Your task to perform on an android device: Go to location settings Image 0: 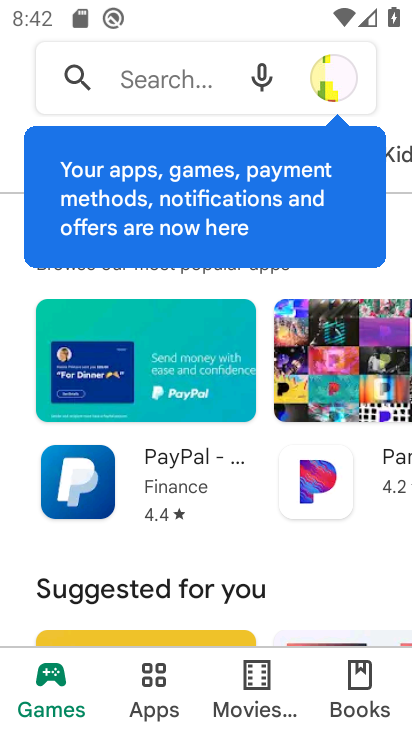
Step 0: press home button
Your task to perform on an android device: Go to location settings Image 1: 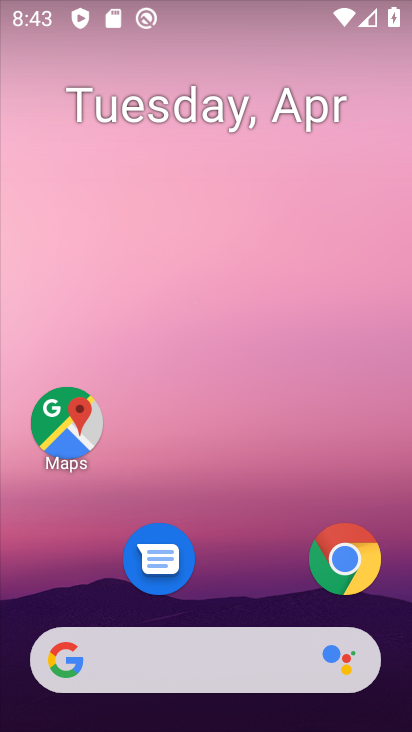
Step 1: drag from (242, 650) to (240, 151)
Your task to perform on an android device: Go to location settings Image 2: 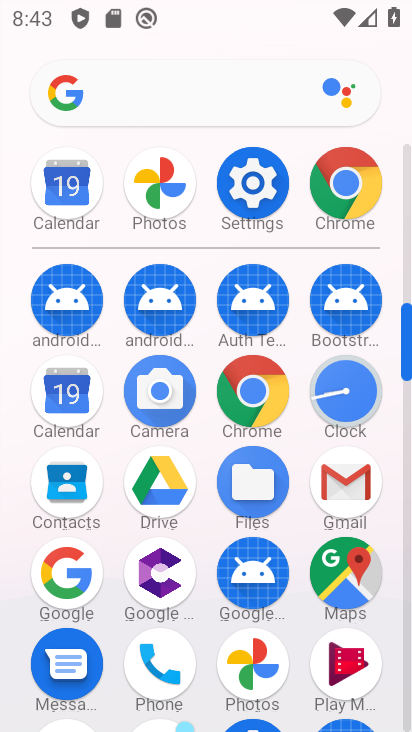
Step 2: click (262, 202)
Your task to perform on an android device: Go to location settings Image 3: 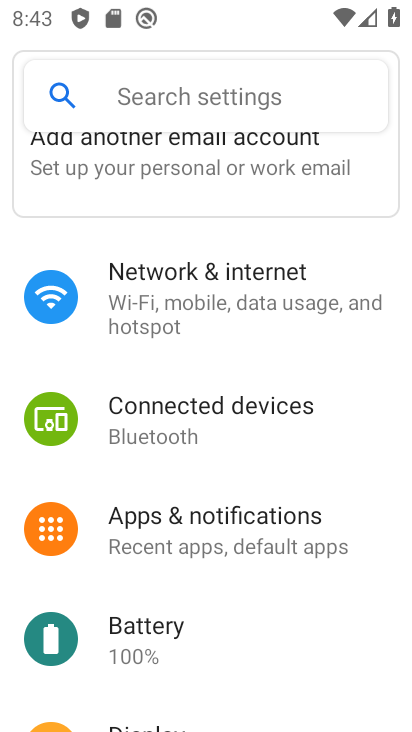
Step 3: click (209, 95)
Your task to perform on an android device: Go to location settings Image 4: 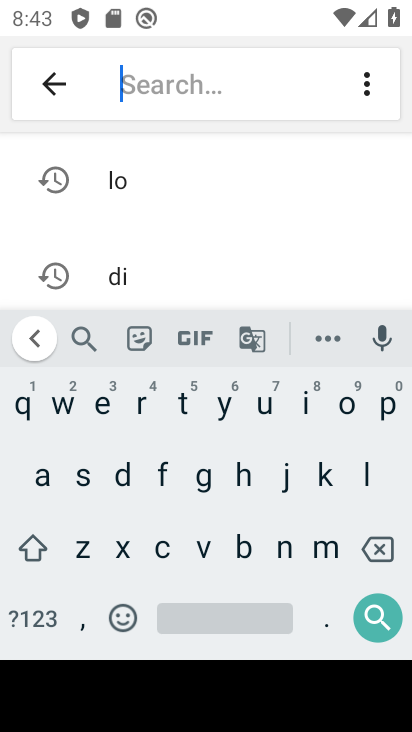
Step 4: click (118, 178)
Your task to perform on an android device: Go to location settings Image 5: 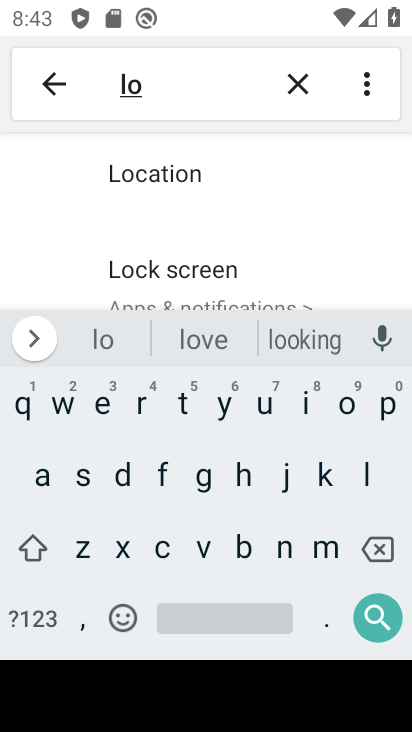
Step 5: press back button
Your task to perform on an android device: Go to location settings Image 6: 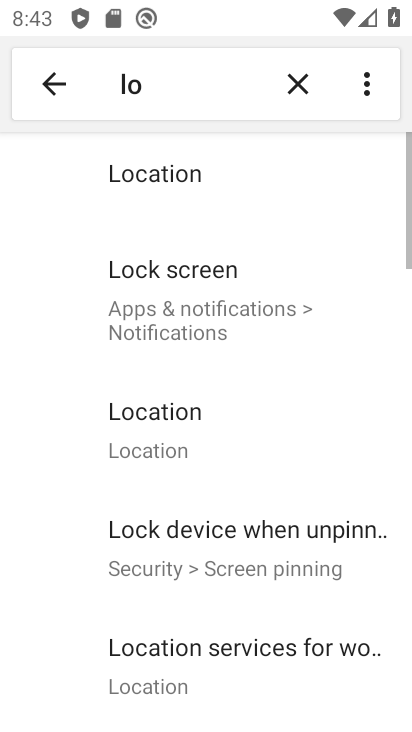
Step 6: click (170, 440)
Your task to perform on an android device: Go to location settings Image 7: 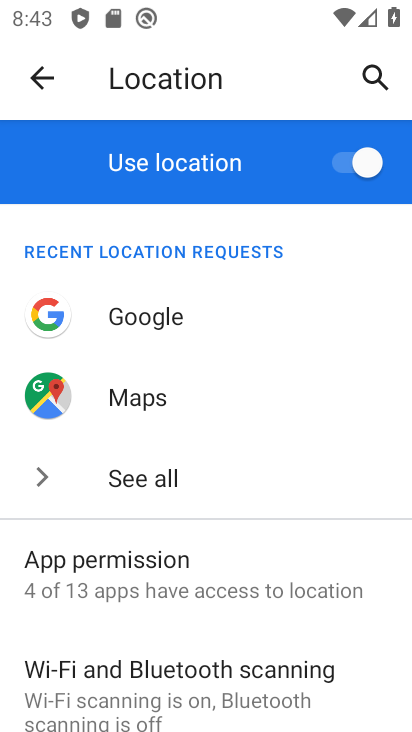
Step 7: task complete